Your task to perform on an android device: Go to Android settings Image 0: 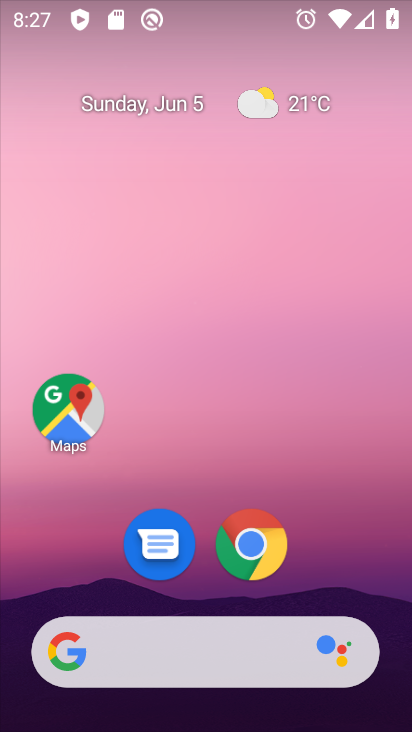
Step 0: drag from (382, 725) to (292, 8)
Your task to perform on an android device: Go to Android settings Image 1: 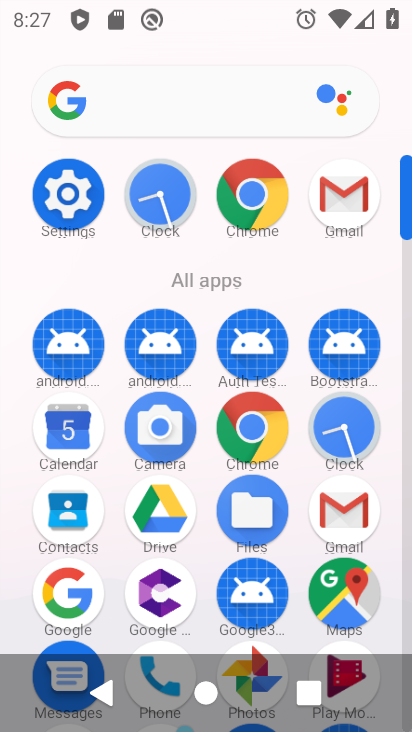
Step 1: click (78, 175)
Your task to perform on an android device: Go to Android settings Image 2: 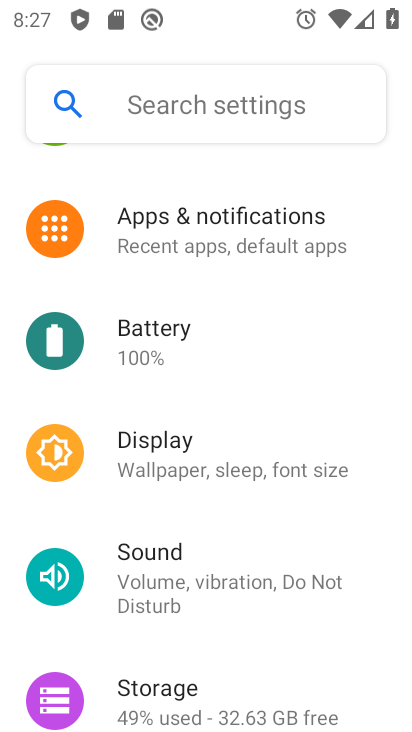
Step 2: task complete